Your task to perform on an android device: check storage Image 0: 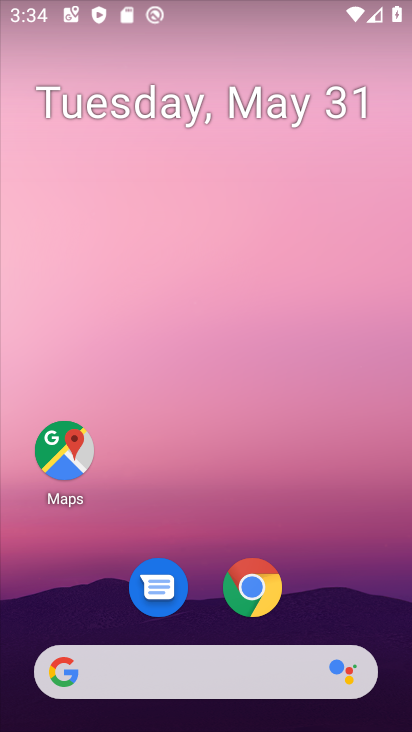
Step 0: drag from (330, 610) to (247, 8)
Your task to perform on an android device: check storage Image 1: 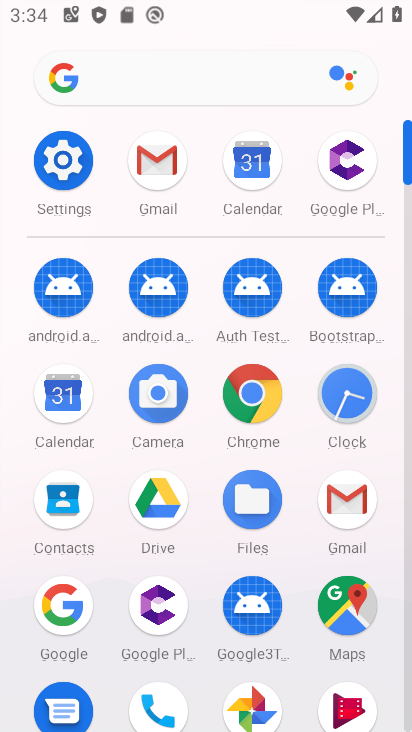
Step 1: click (70, 168)
Your task to perform on an android device: check storage Image 2: 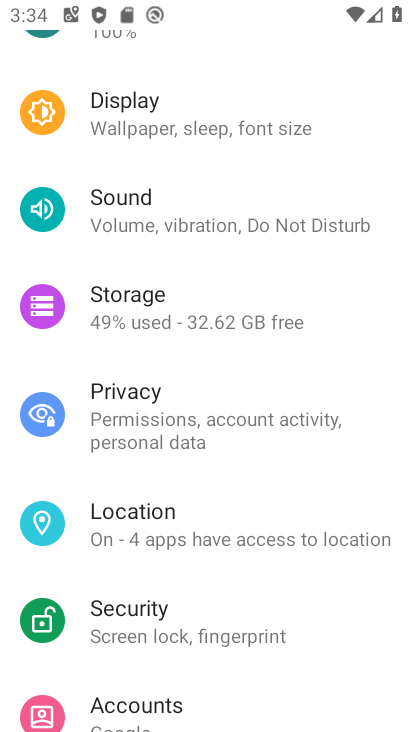
Step 2: click (166, 303)
Your task to perform on an android device: check storage Image 3: 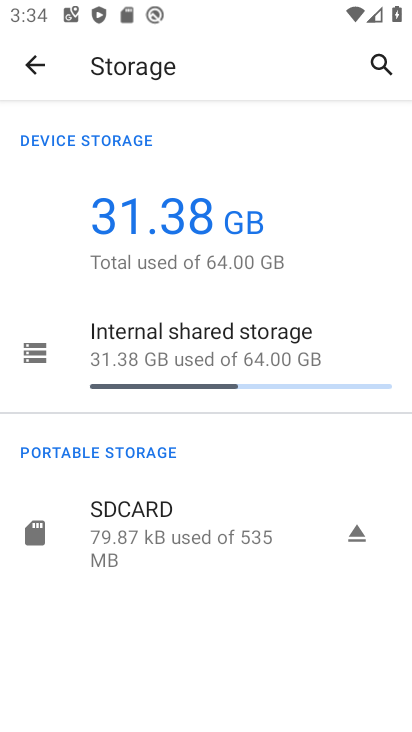
Step 3: task complete